Your task to perform on an android device: Open the web browser Image 0: 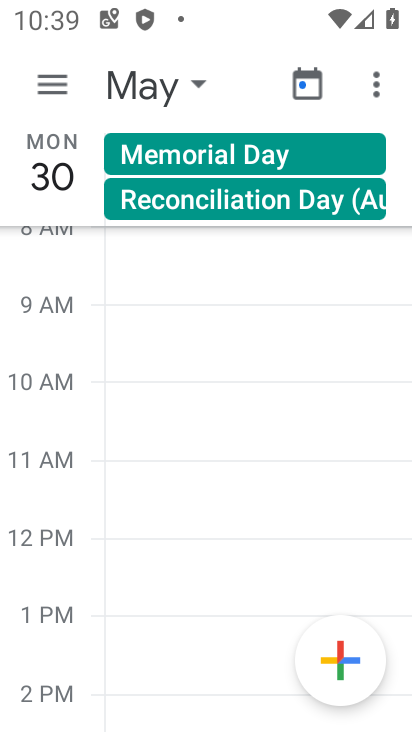
Step 0: press home button
Your task to perform on an android device: Open the web browser Image 1: 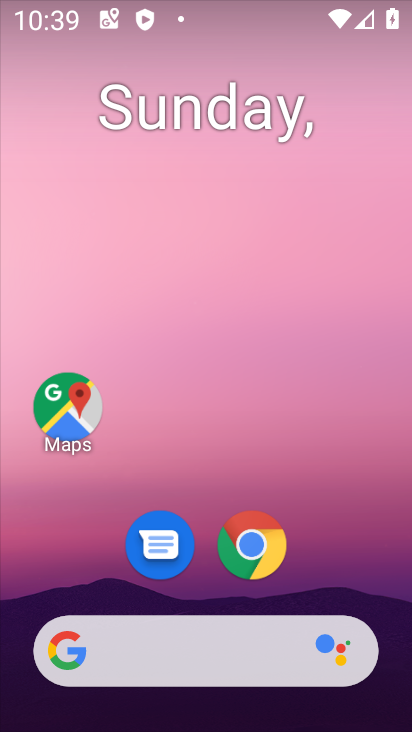
Step 1: drag from (107, 506) to (278, 76)
Your task to perform on an android device: Open the web browser Image 2: 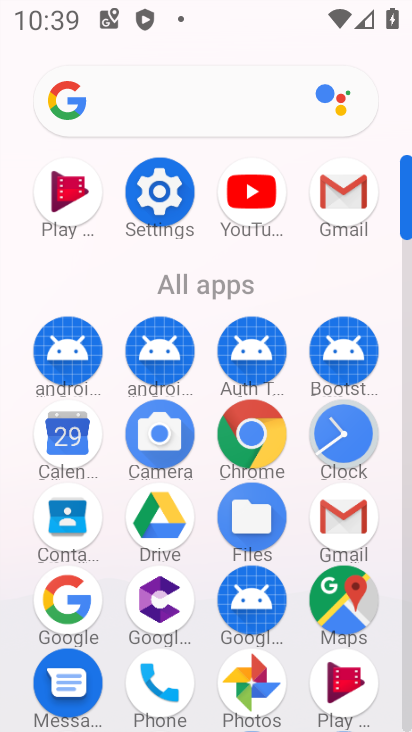
Step 2: click (27, 607)
Your task to perform on an android device: Open the web browser Image 3: 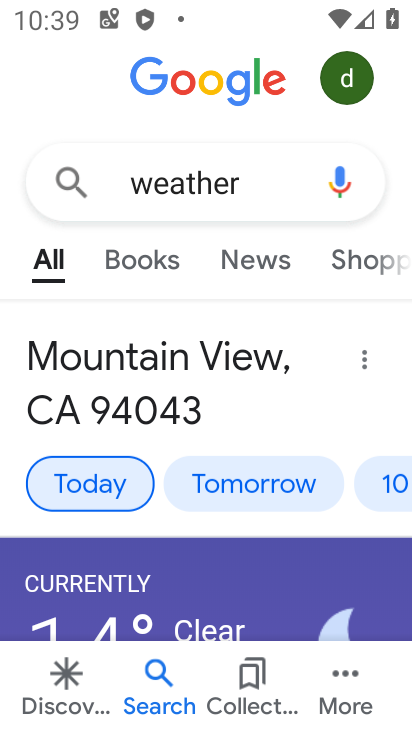
Step 3: task complete